Your task to perform on an android device: Open the web browser Image 0: 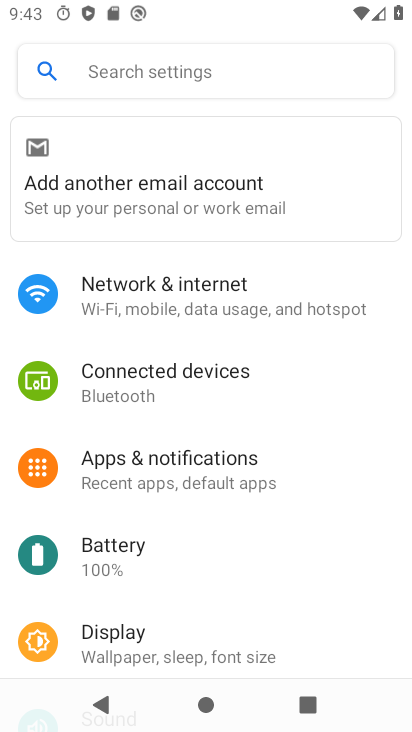
Step 0: press home button
Your task to perform on an android device: Open the web browser Image 1: 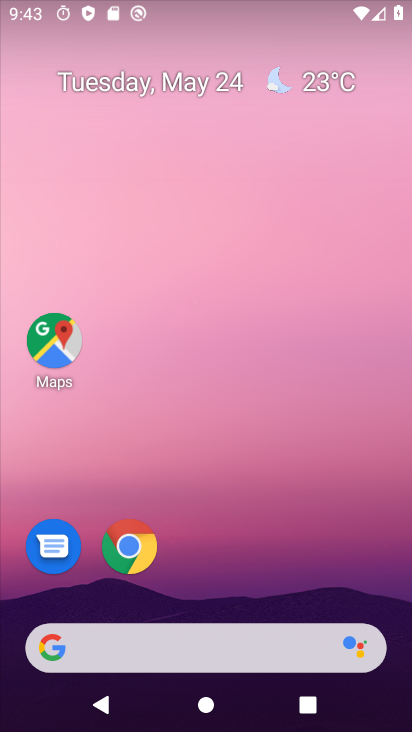
Step 1: drag from (220, 569) to (335, 45)
Your task to perform on an android device: Open the web browser Image 2: 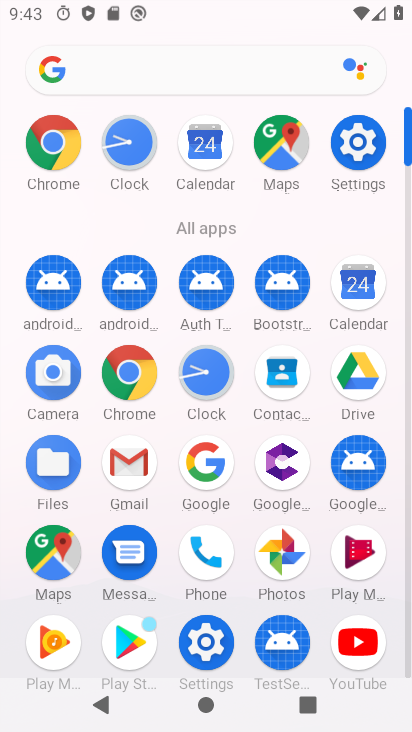
Step 2: click (208, 460)
Your task to perform on an android device: Open the web browser Image 3: 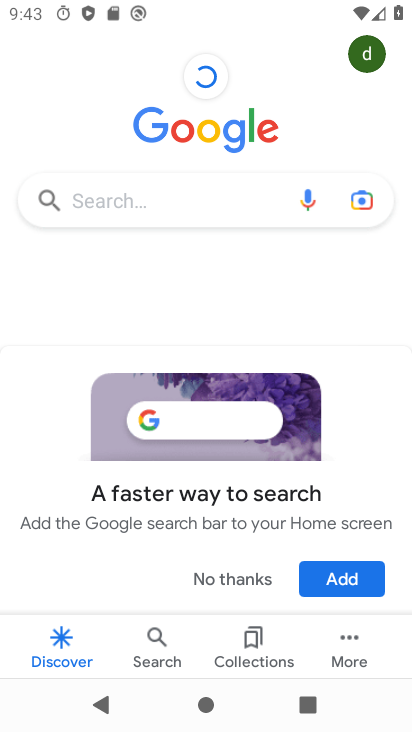
Step 3: task complete